Your task to perform on an android device: Open the calendar app, open the side menu, and click the "Day" option Image 0: 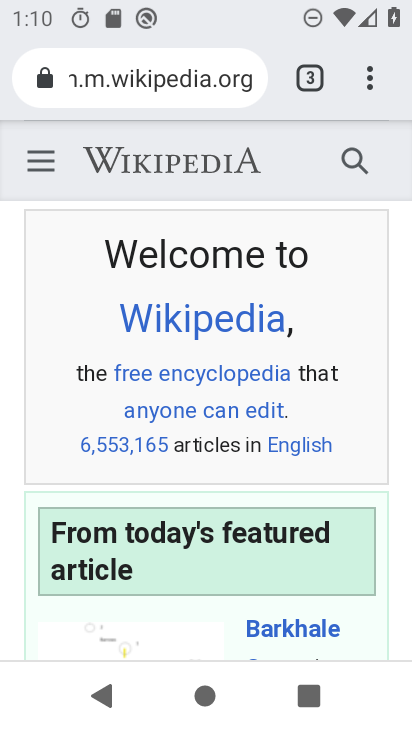
Step 0: press back button
Your task to perform on an android device: Open the calendar app, open the side menu, and click the "Day" option Image 1: 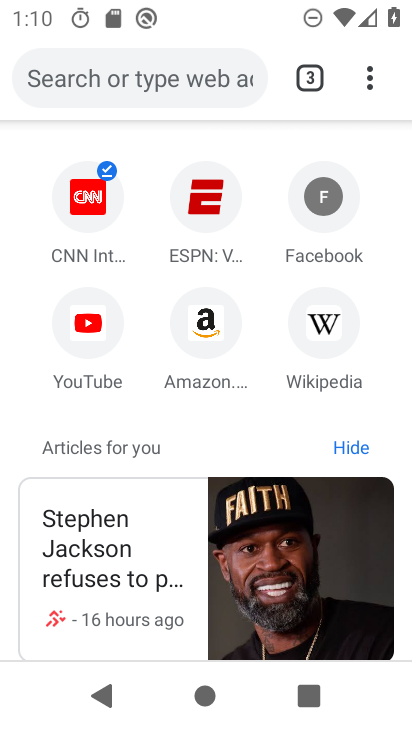
Step 1: press back button
Your task to perform on an android device: Open the calendar app, open the side menu, and click the "Day" option Image 2: 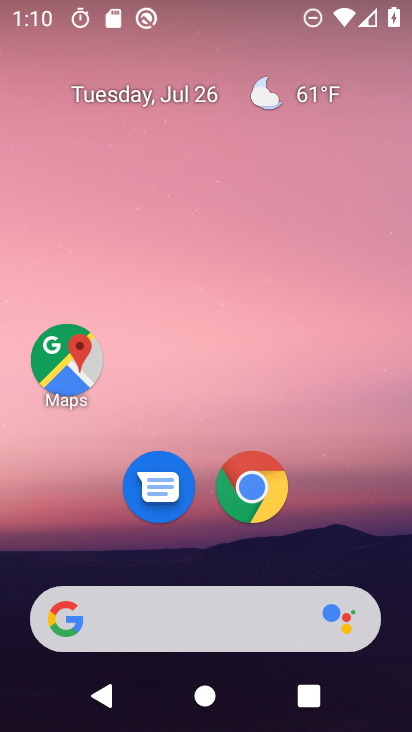
Step 2: drag from (64, 562) to (244, 1)
Your task to perform on an android device: Open the calendar app, open the side menu, and click the "Day" option Image 3: 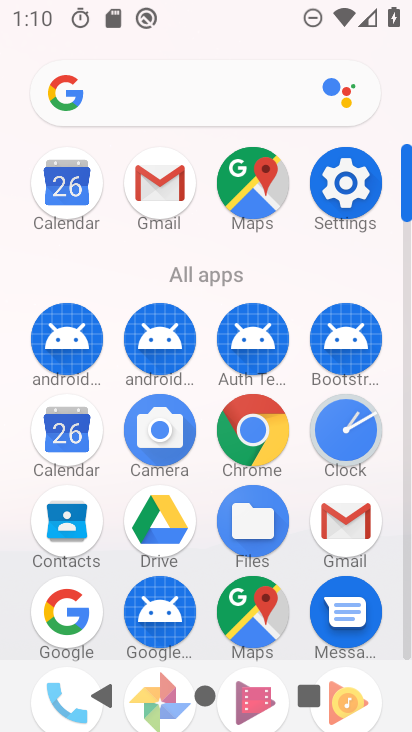
Step 3: click (59, 449)
Your task to perform on an android device: Open the calendar app, open the side menu, and click the "Day" option Image 4: 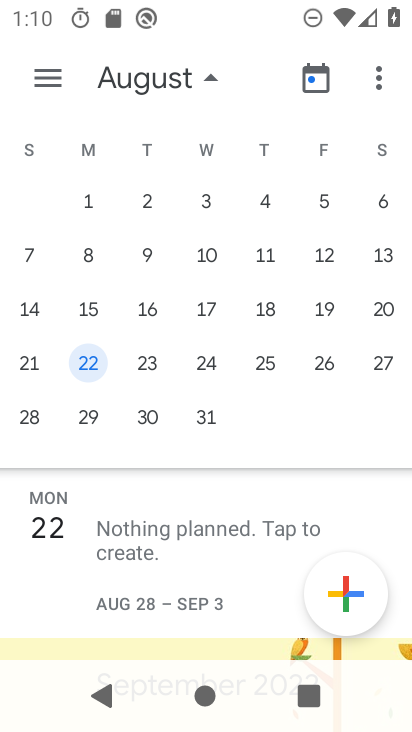
Step 4: click (33, 67)
Your task to perform on an android device: Open the calendar app, open the side menu, and click the "Day" option Image 5: 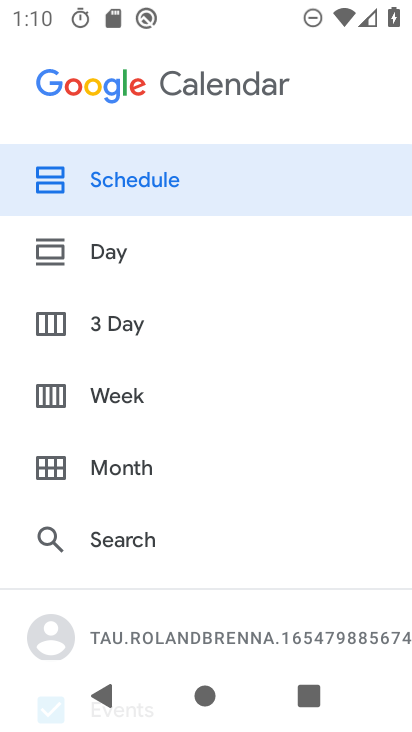
Step 5: click (118, 247)
Your task to perform on an android device: Open the calendar app, open the side menu, and click the "Day" option Image 6: 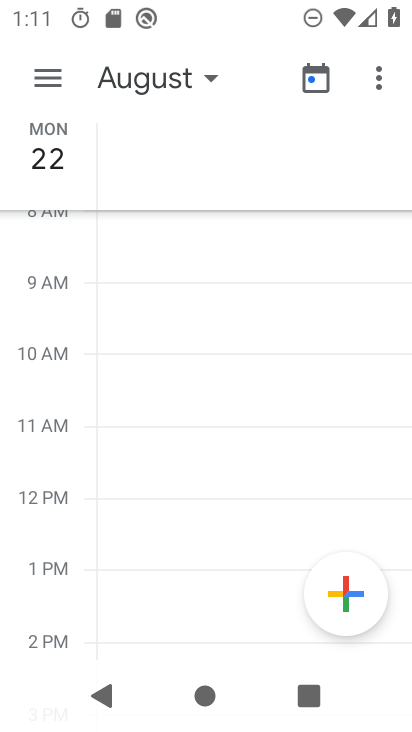
Step 6: click (69, 76)
Your task to perform on an android device: Open the calendar app, open the side menu, and click the "Day" option Image 7: 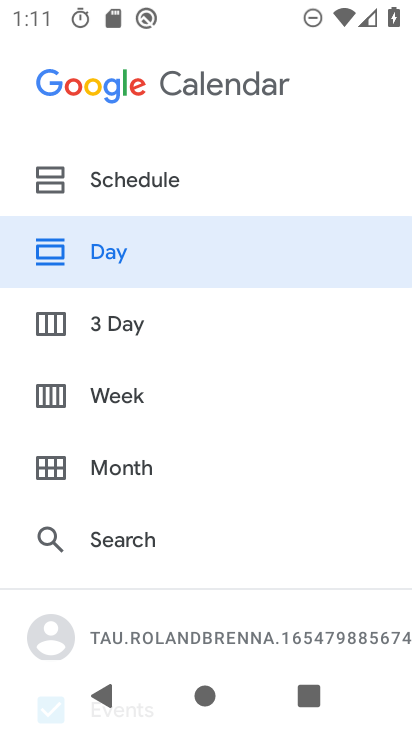
Step 7: task complete